Your task to perform on an android device: move an email to a new category in the gmail app Image 0: 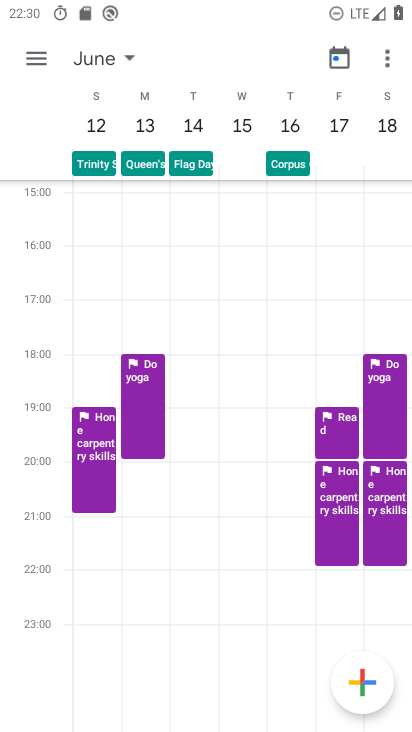
Step 0: press home button
Your task to perform on an android device: move an email to a new category in the gmail app Image 1: 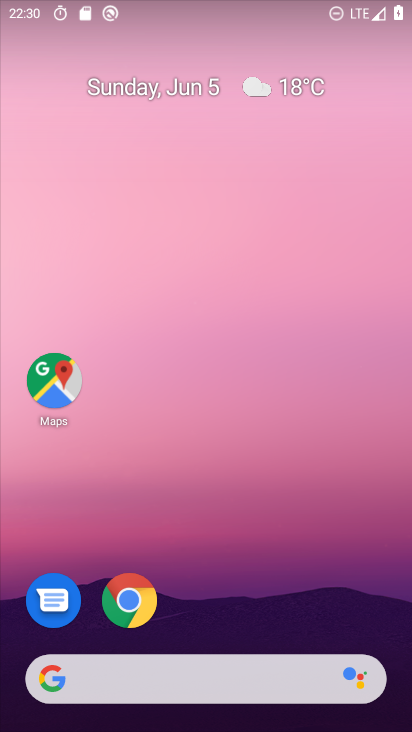
Step 1: drag from (270, 449) to (101, 65)
Your task to perform on an android device: move an email to a new category in the gmail app Image 2: 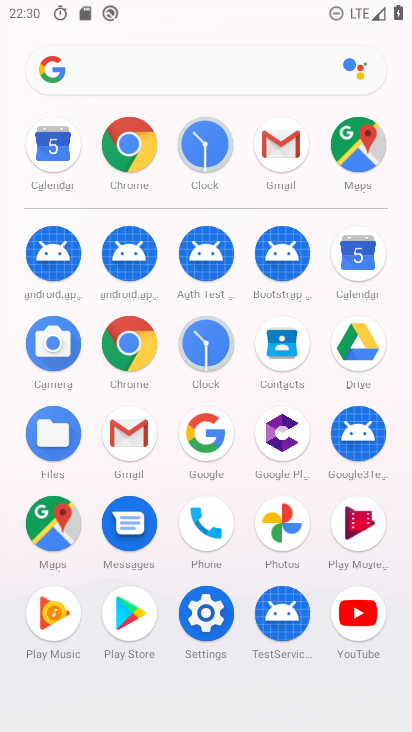
Step 2: click (276, 145)
Your task to perform on an android device: move an email to a new category in the gmail app Image 3: 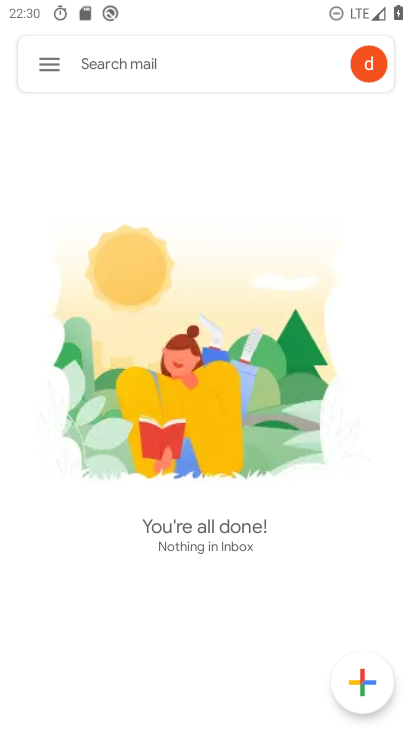
Step 3: click (44, 64)
Your task to perform on an android device: move an email to a new category in the gmail app Image 4: 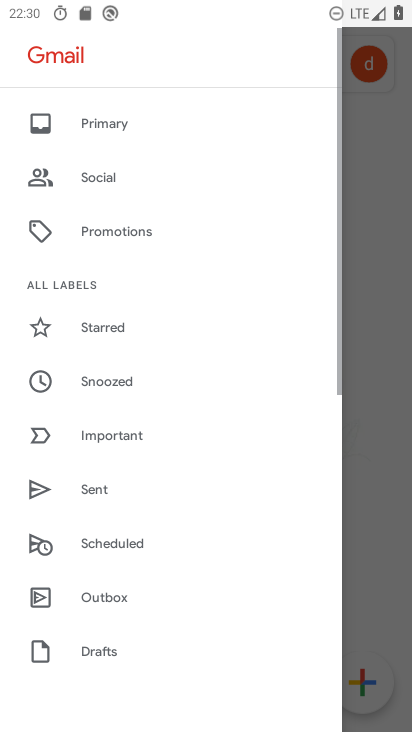
Step 4: drag from (150, 624) to (107, 454)
Your task to perform on an android device: move an email to a new category in the gmail app Image 5: 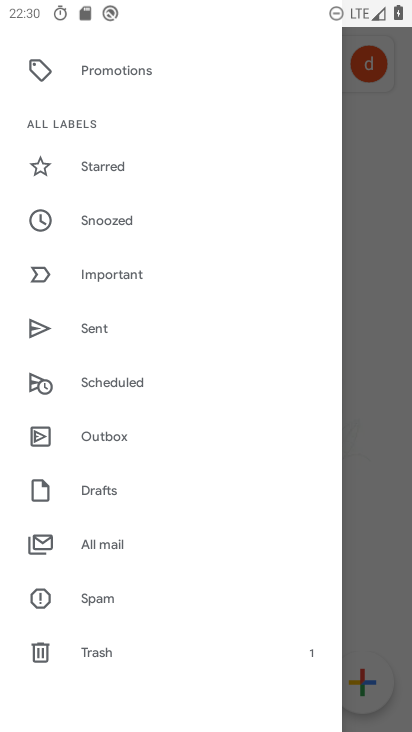
Step 5: click (100, 536)
Your task to perform on an android device: move an email to a new category in the gmail app Image 6: 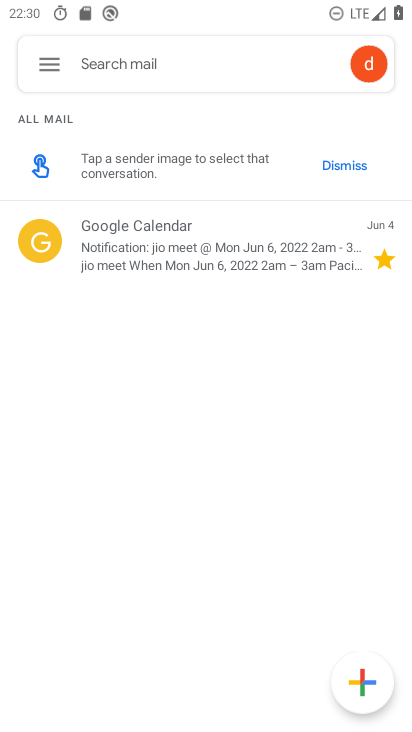
Step 6: click (237, 250)
Your task to perform on an android device: move an email to a new category in the gmail app Image 7: 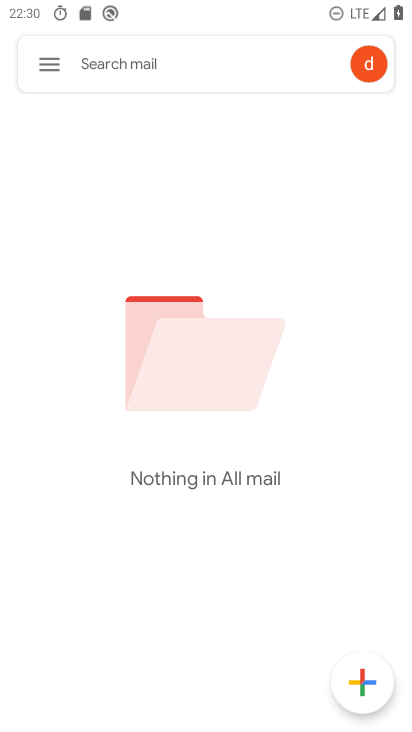
Step 7: task complete